Your task to perform on an android device: toggle pop-ups in chrome Image 0: 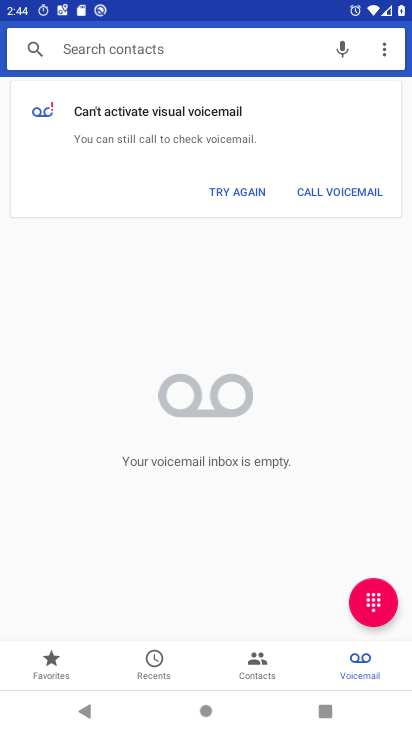
Step 0: drag from (213, 531) to (255, 155)
Your task to perform on an android device: toggle pop-ups in chrome Image 1: 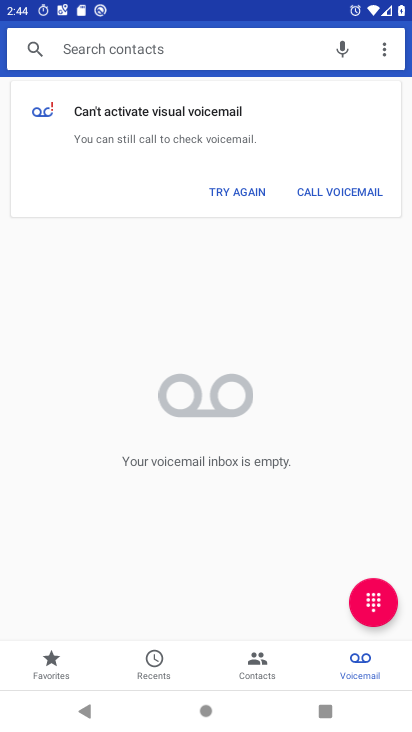
Step 1: drag from (189, 514) to (252, 155)
Your task to perform on an android device: toggle pop-ups in chrome Image 2: 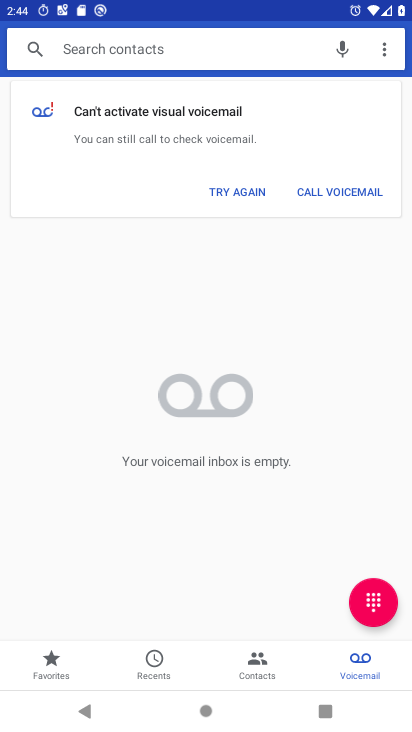
Step 2: drag from (207, 450) to (321, 78)
Your task to perform on an android device: toggle pop-ups in chrome Image 3: 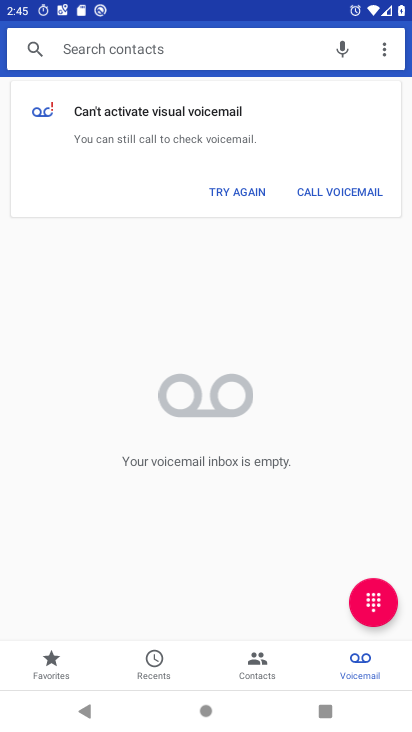
Step 3: press home button
Your task to perform on an android device: toggle pop-ups in chrome Image 4: 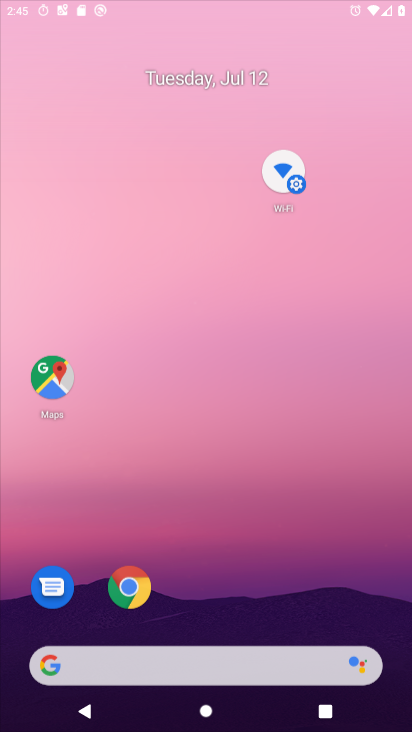
Step 4: drag from (195, 597) to (317, 90)
Your task to perform on an android device: toggle pop-ups in chrome Image 5: 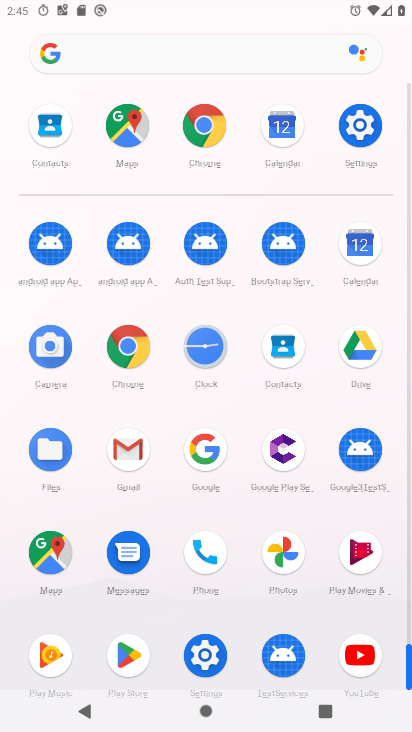
Step 5: click (128, 342)
Your task to perform on an android device: toggle pop-ups in chrome Image 6: 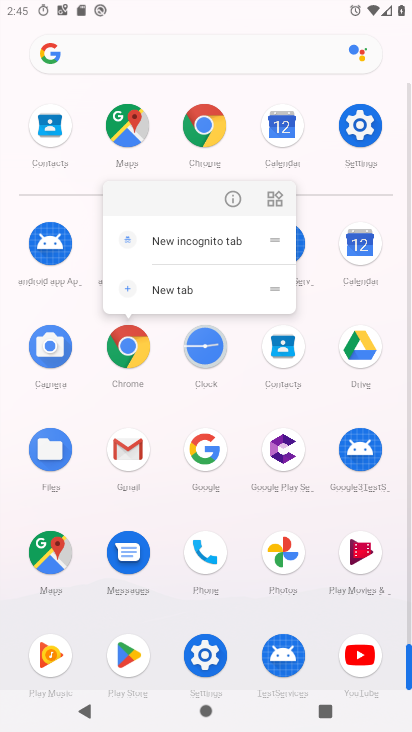
Step 6: click (229, 199)
Your task to perform on an android device: toggle pop-ups in chrome Image 7: 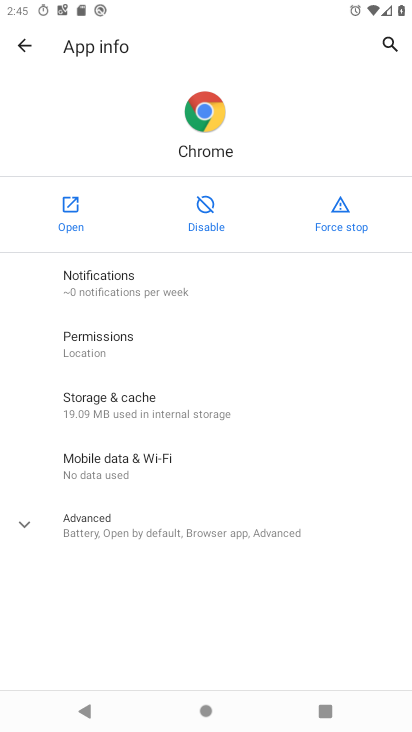
Step 7: click (75, 205)
Your task to perform on an android device: toggle pop-ups in chrome Image 8: 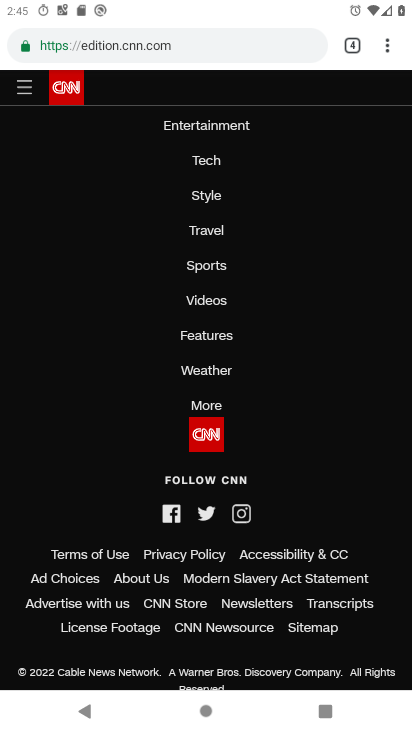
Step 8: drag from (223, 595) to (256, 166)
Your task to perform on an android device: toggle pop-ups in chrome Image 9: 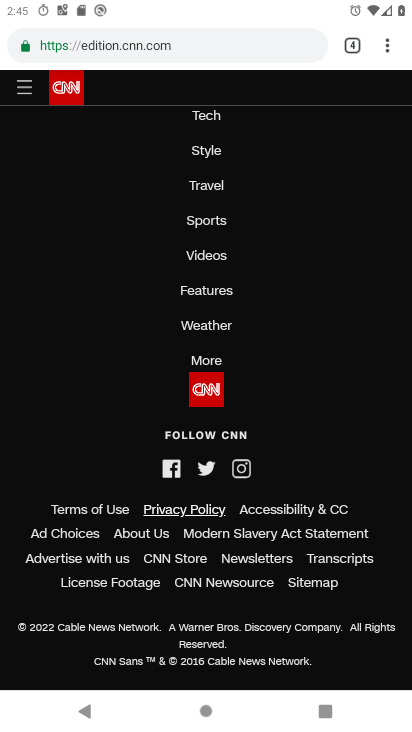
Step 9: drag from (277, 265) to (320, 611)
Your task to perform on an android device: toggle pop-ups in chrome Image 10: 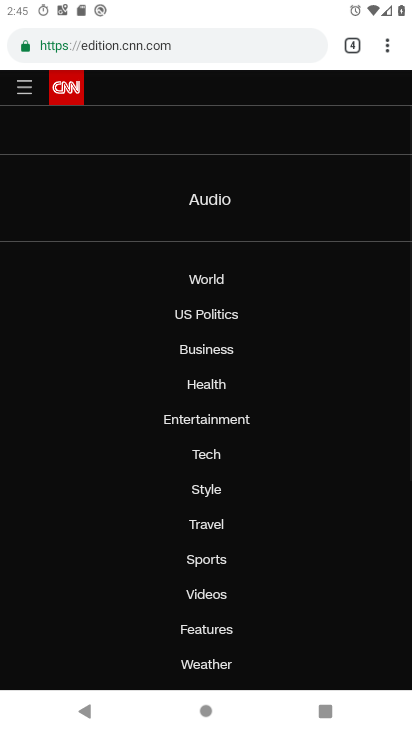
Step 10: click (388, 42)
Your task to perform on an android device: toggle pop-ups in chrome Image 11: 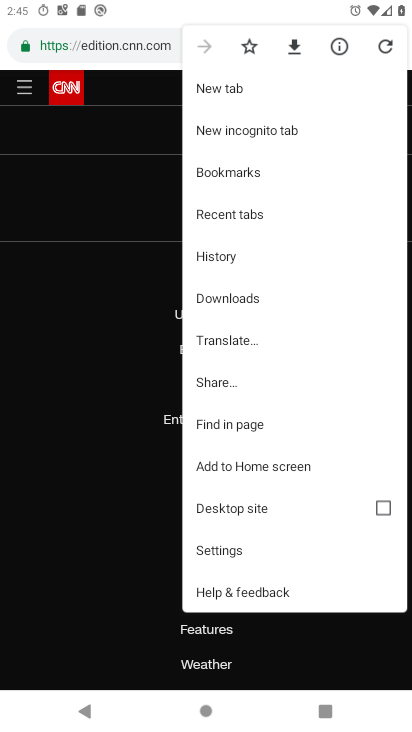
Step 11: click (233, 537)
Your task to perform on an android device: toggle pop-ups in chrome Image 12: 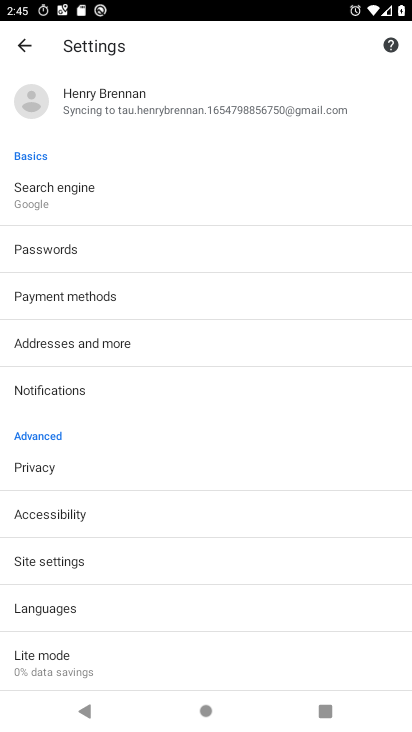
Step 12: click (72, 561)
Your task to perform on an android device: toggle pop-ups in chrome Image 13: 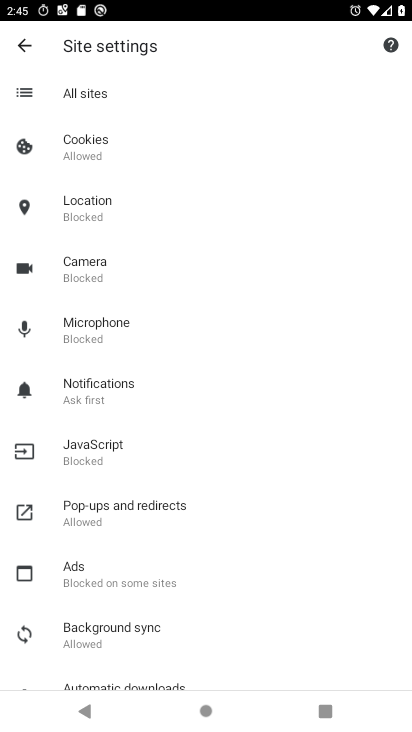
Step 13: click (150, 510)
Your task to perform on an android device: toggle pop-ups in chrome Image 14: 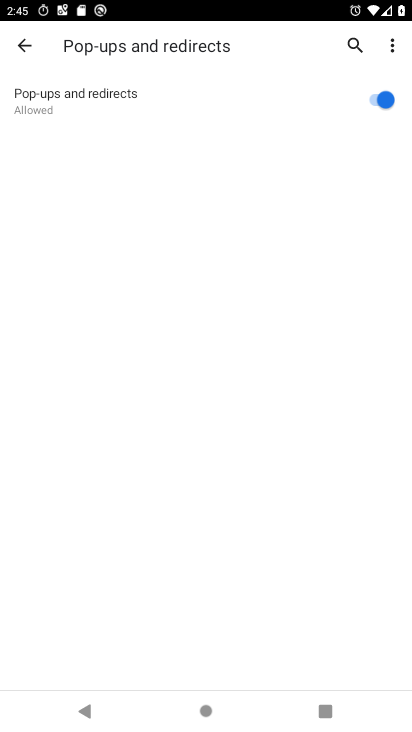
Step 14: click (387, 99)
Your task to perform on an android device: toggle pop-ups in chrome Image 15: 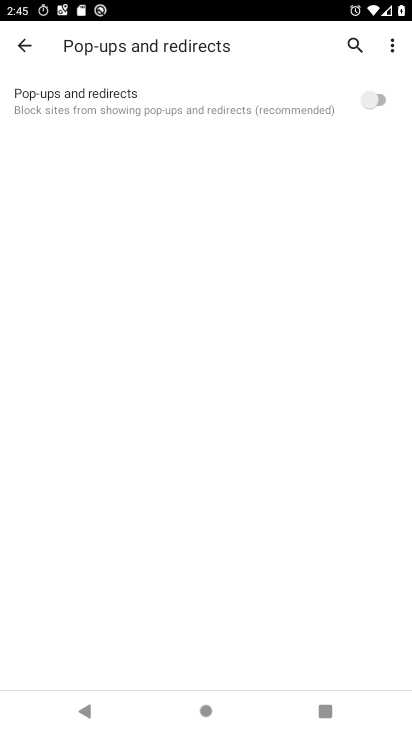
Step 15: task complete